Your task to perform on an android device: uninstall "HBO Max: Stream TV & Movies" Image 0: 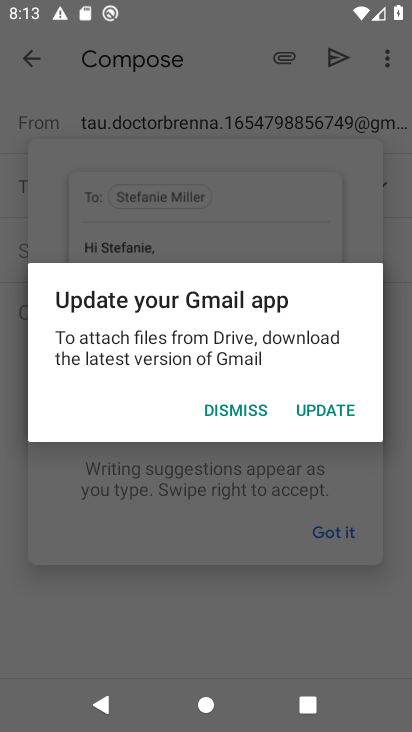
Step 0: press home button
Your task to perform on an android device: uninstall "HBO Max: Stream TV & Movies" Image 1: 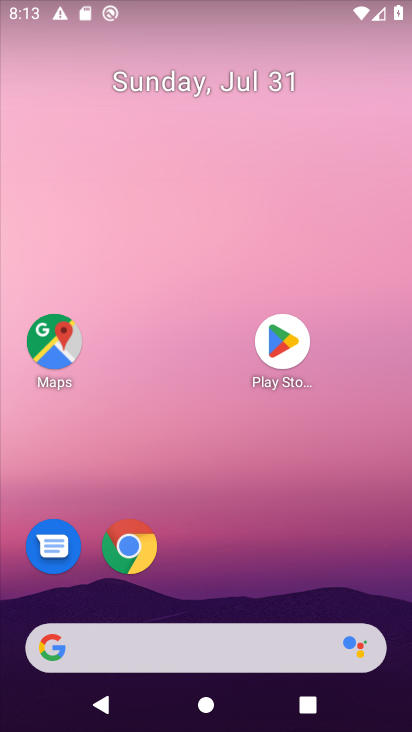
Step 1: click (291, 338)
Your task to perform on an android device: uninstall "HBO Max: Stream TV & Movies" Image 2: 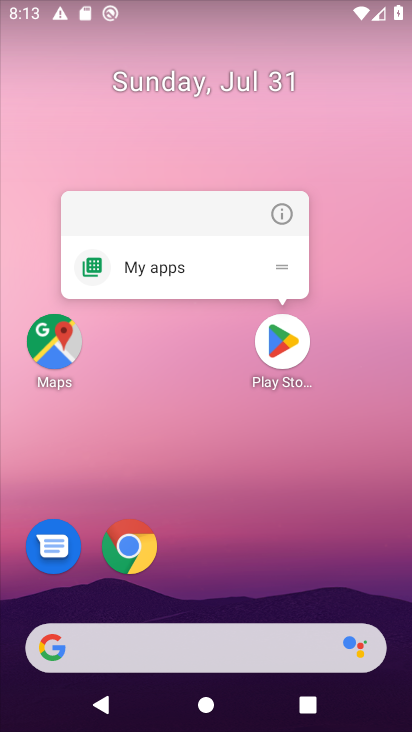
Step 2: click (284, 344)
Your task to perform on an android device: uninstall "HBO Max: Stream TV & Movies" Image 3: 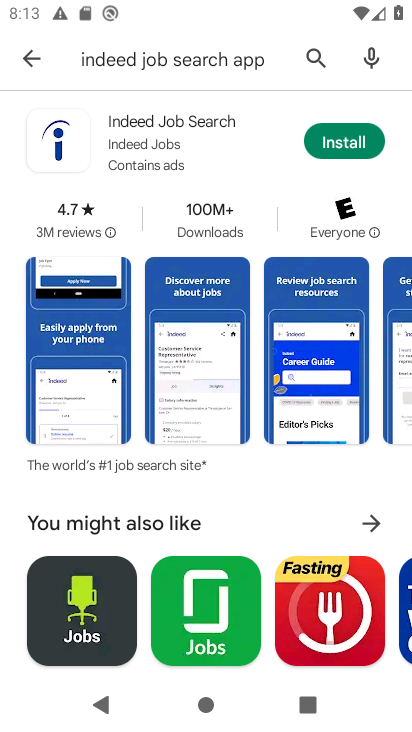
Step 3: click (315, 50)
Your task to perform on an android device: uninstall "HBO Max: Stream TV & Movies" Image 4: 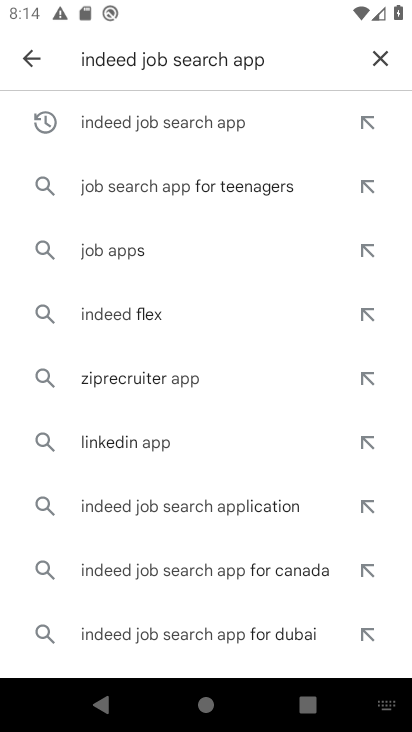
Step 4: click (377, 52)
Your task to perform on an android device: uninstall "HBO Max: Stream TV & Movies" Image 5: 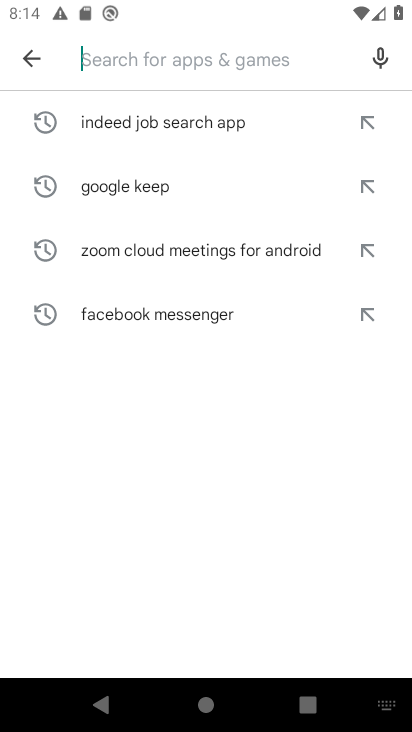
Step 5: type "HBO Max: Stream TV & Movies"
Your task to perform on an android device: uninstall "HBO Max: Stream TV & Movies" Image 6: 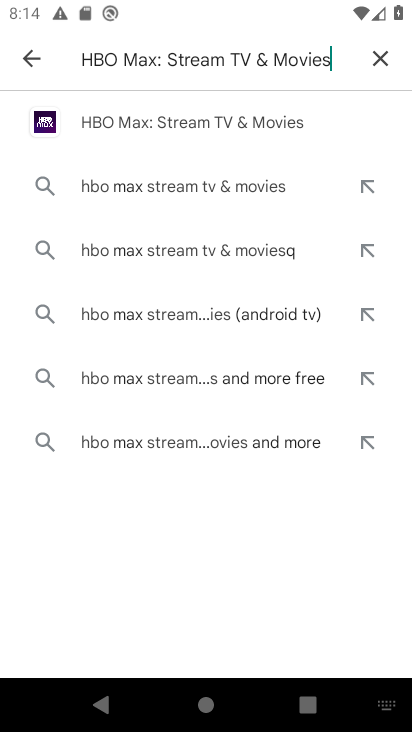
Step 6: click (230, 121)
Your task to perform on an android device: uninstall "HBO Max: Stream TV & Movies" Image 7: 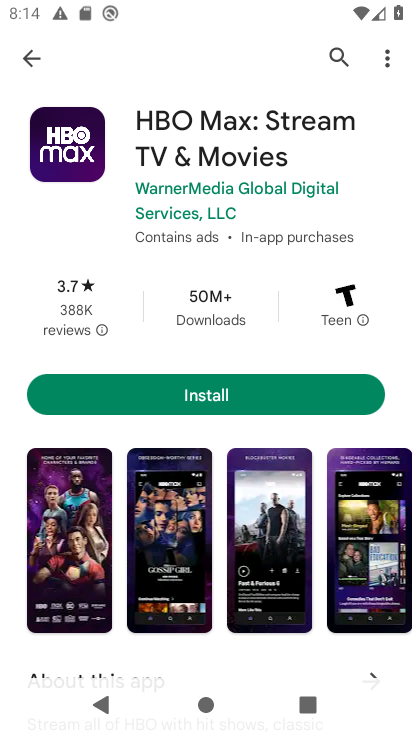
Step 7: task complete